Your task to perform on an android device: Open the map Image 0: 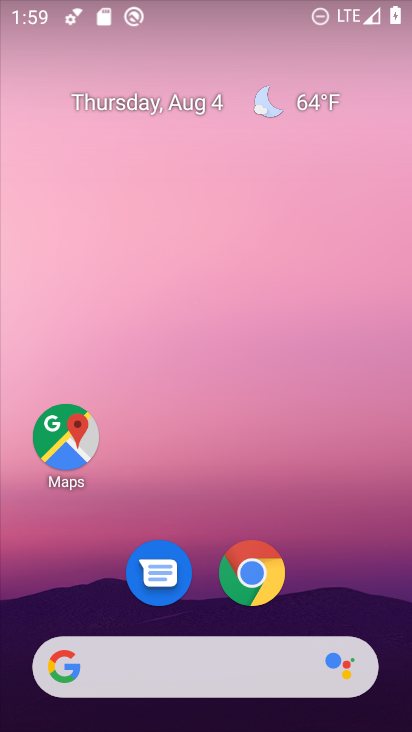
Step 0: drag from (336, 568) to (304, 157)
Your task to perform on an android device: Open the map Image 1: 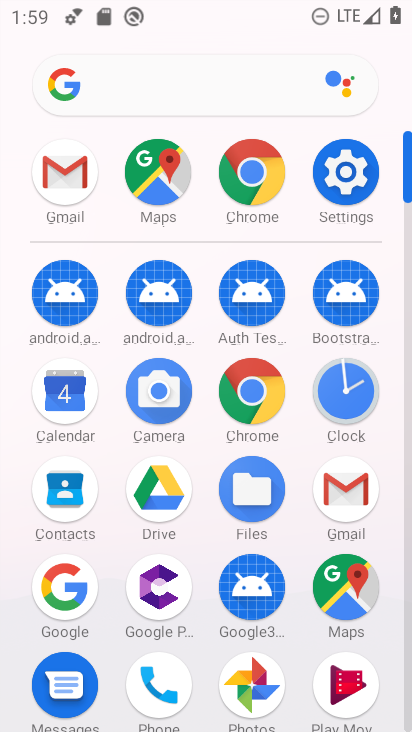
Step 1: click (351, 582)
Your task to perform on an android device: Open the map Image 2: 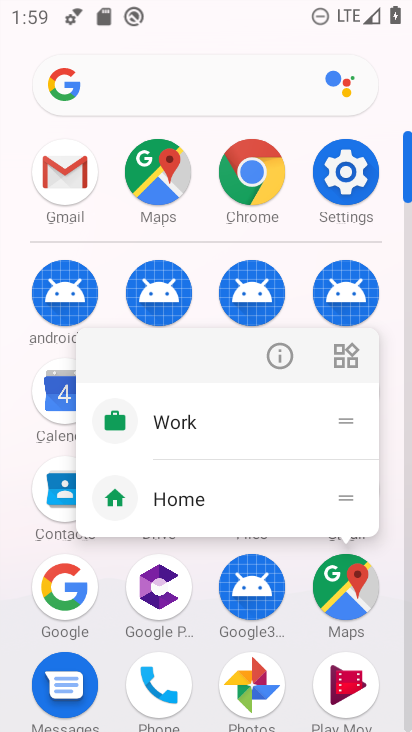
Step 2: click (340, 586)
Your task to perform on an android device: Open the map Image 3: 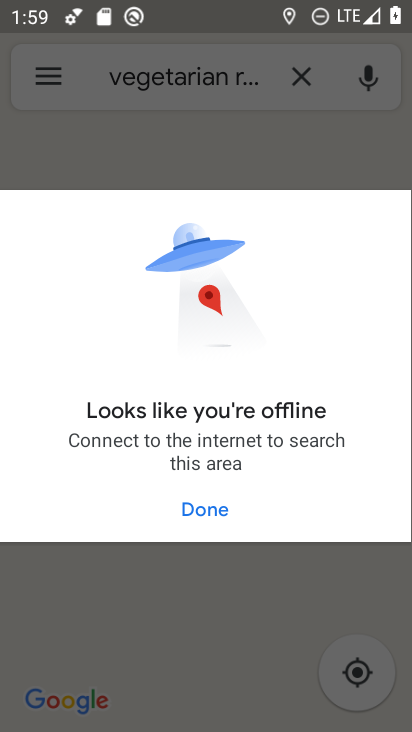
Step 3: task complete